Your task to perform on an android device: Open calendar and show me the second week of next month Image 0: 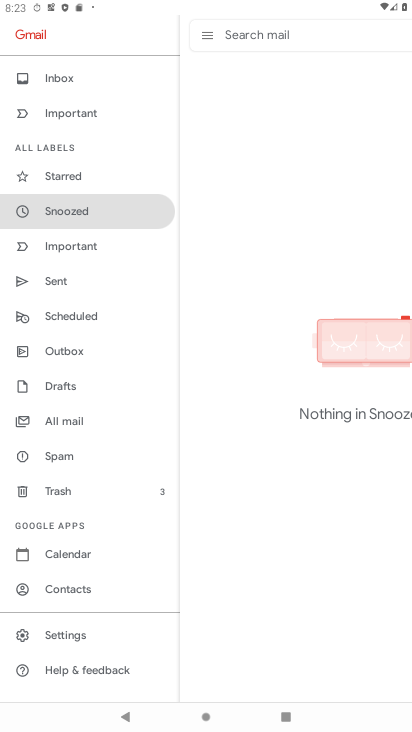
Step 0: press home button
Your task to perform on an android device: Open calendar and show me the second week of next month Image 1: 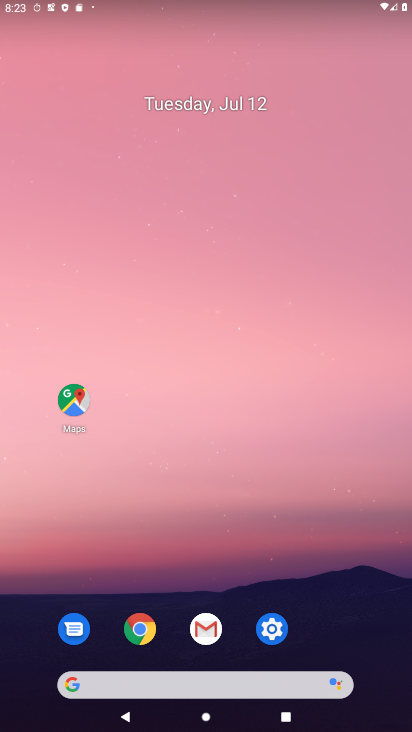
Step 1: drag from (260, 693) to (356, 82)
Your task to perform on an android device: Open calendar and show me the second week of next month Image 2: 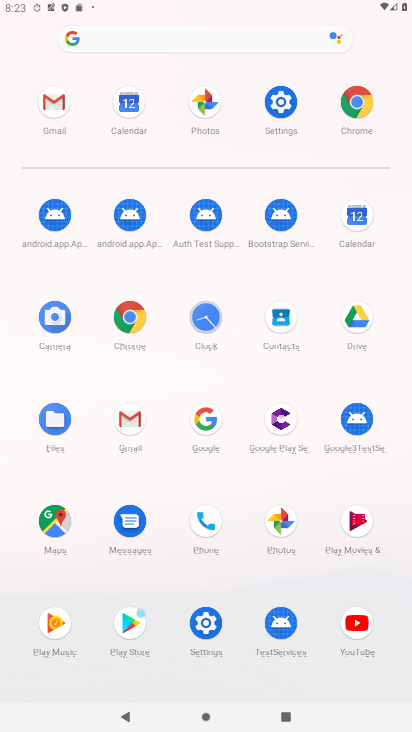
Step 2: click (362, 226)
Your task to perform on an android device: Open calendar and show me the second week of next month Image 3: 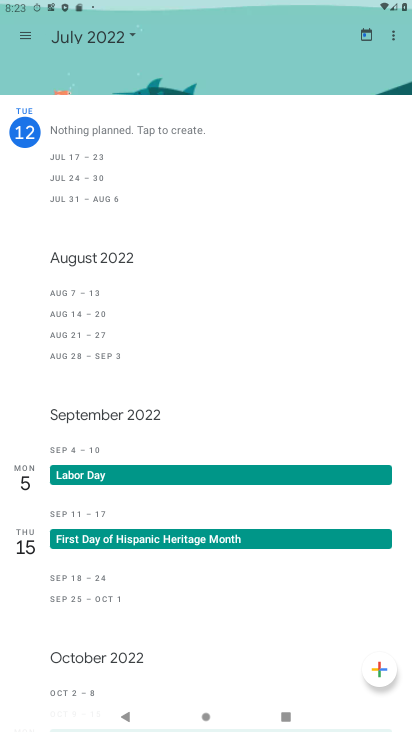
Step 3: click (31, 44)
Your task to perform on an android device: Open calendar and show me the second week of next month Image 4: 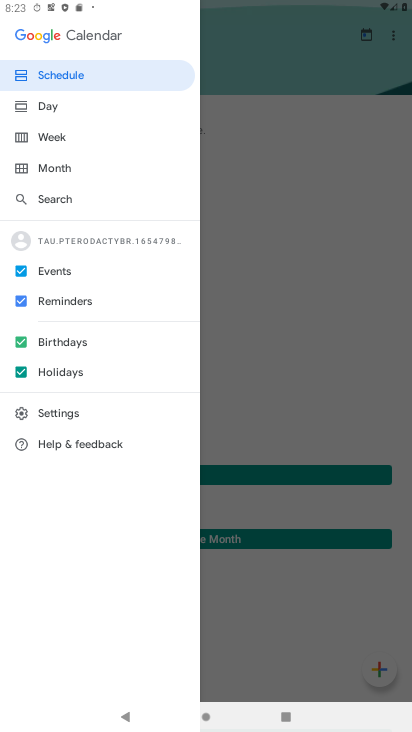
Step 4: click (62, 170)
Your task to perform on an android device: Open calendar and show me the second week of next month Image 5: 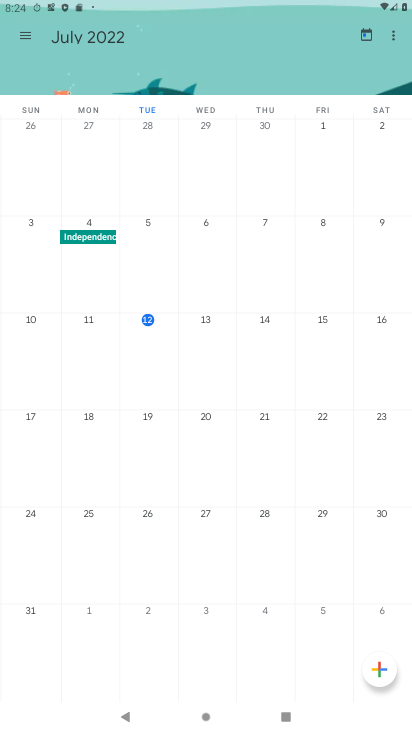
Step 5: click (92, 261)
Your task to perform on an android device: Open calendar and show me the second week of next month Image 6: 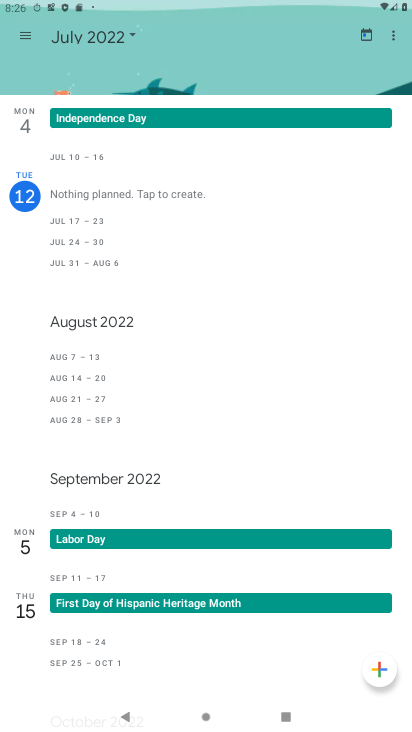
Step 6: task complete